Your task to perform on an android device: What's the weather? Image 0: 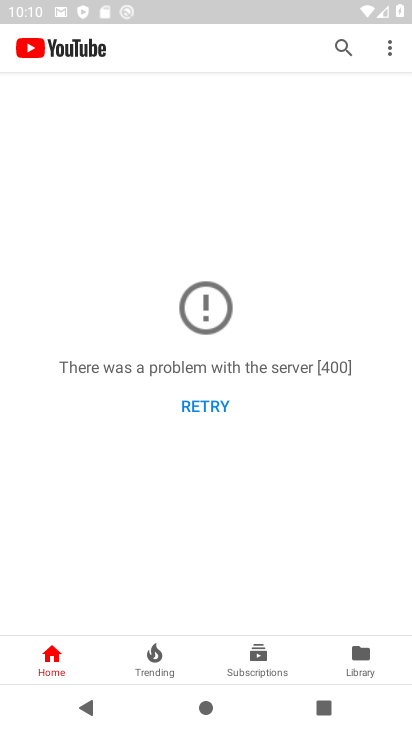
Step 0: press home button
Your task to perform on an android device: What's the weather? Image 1: 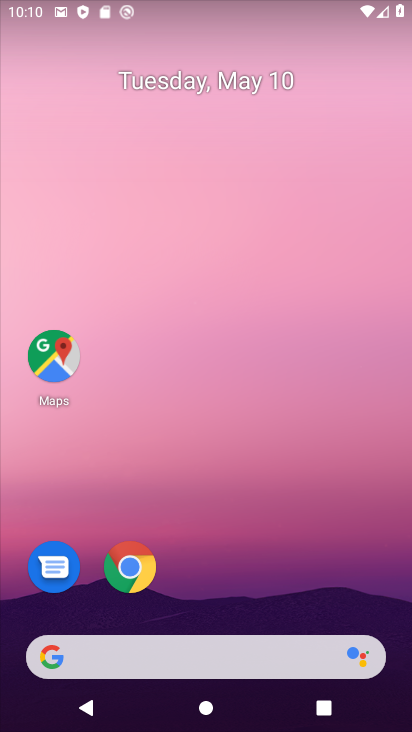
Step 1: click (176, 652)
Your task to perform on an android device: What's the weather? Image 2: 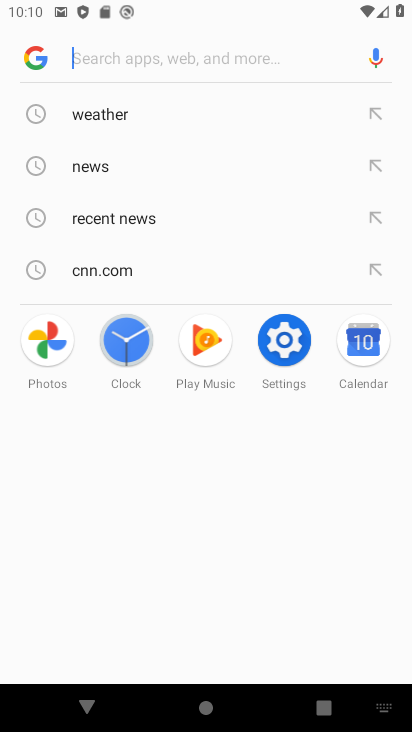
Step 2: click (135, 125)
Your task to perform on an android device: What's the weather? Image 3: 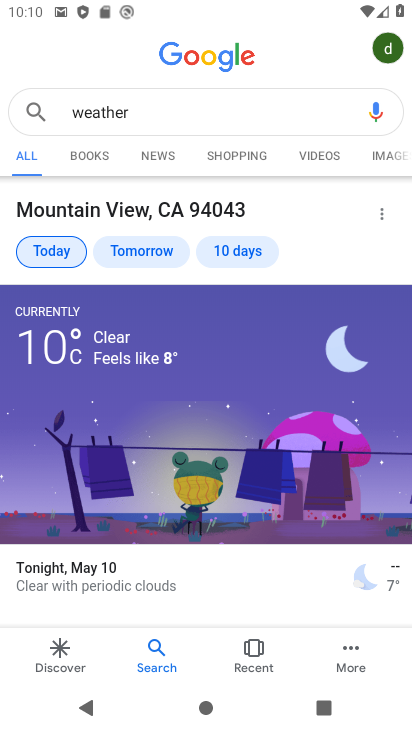
Step 3: task complete